Your task to perform on an android device: turn off javascript in the chrome app Image 0: 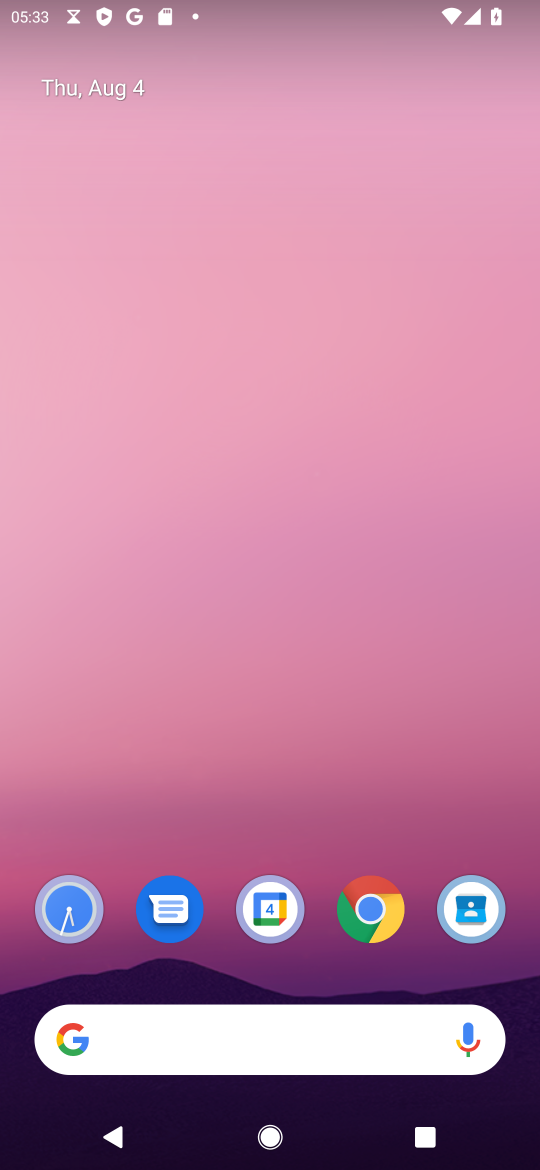
Step 0: press home button
Your task to perform on an android device: turn off javascript in the chrome app Image 1: 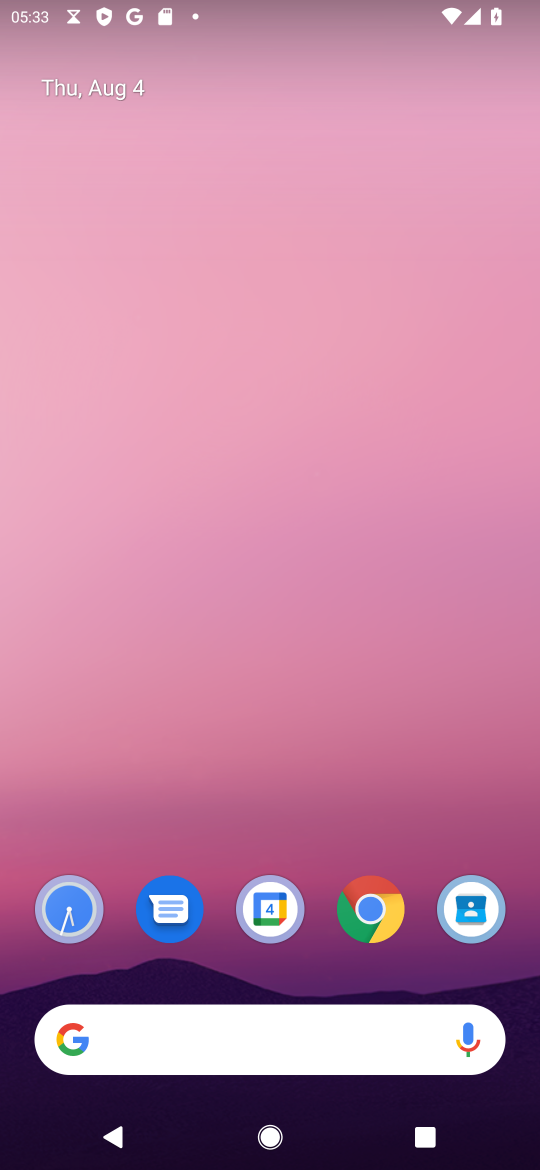
Step 1: click (369, 912)
Your task to perform on an android device: turn off javascript in the chrome app Image 2: 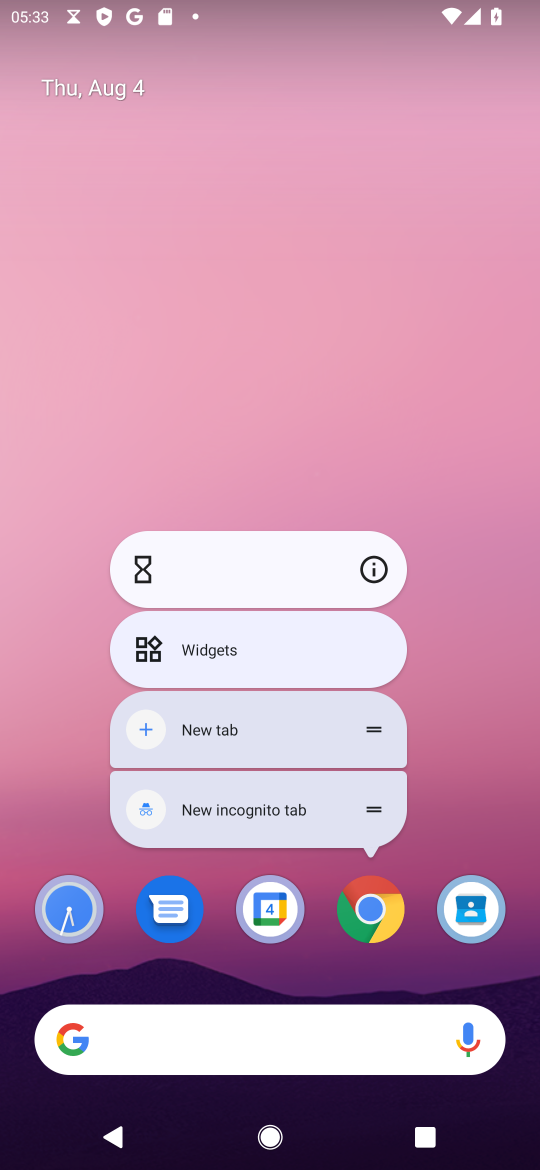
Step 2: click (374, 910)
Your task to perform on an android device: turn off javascript in the chrome app Image 3: 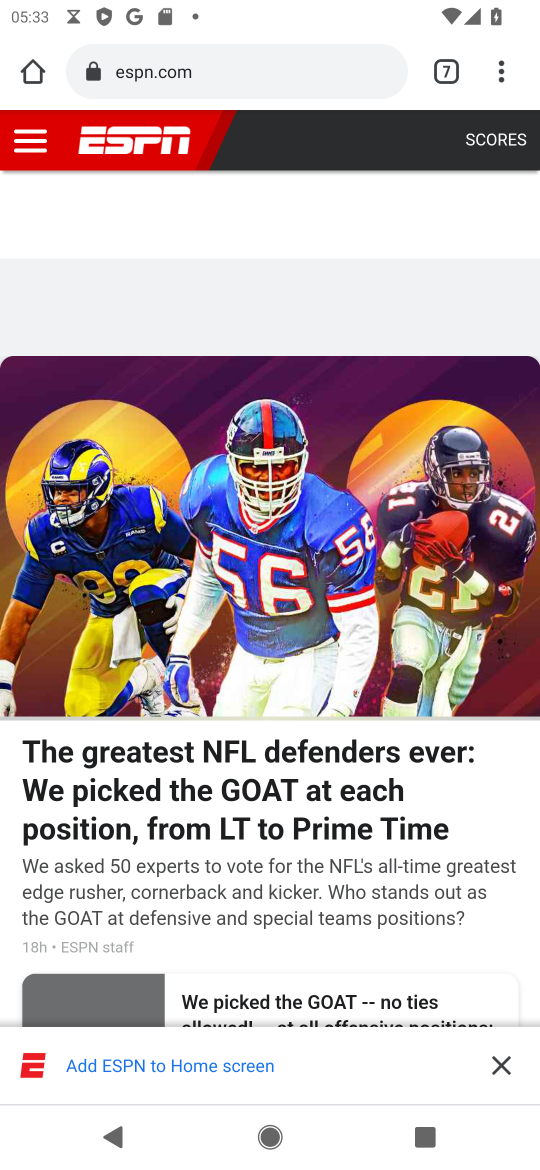
Step 3: drag from (500, 75) to (322, 984)
Your task to perform on an android device: turn off javascript in the chrome app Image 4: 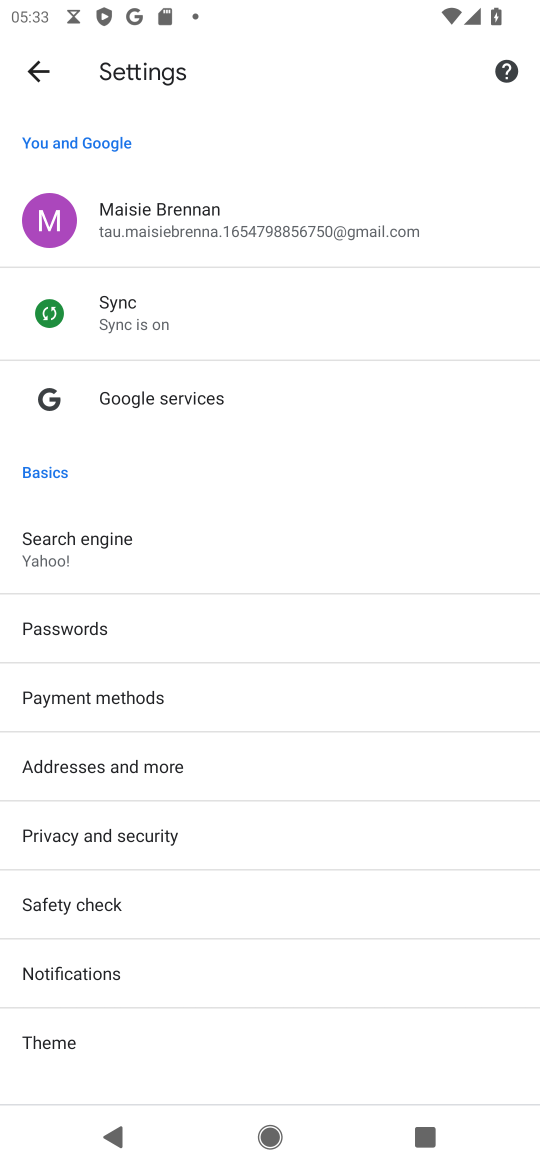
Step 4: drag from (189, 925) to (383, 346)
Your task to perform on an android device: turn off javascript in the chrome app Image 5: 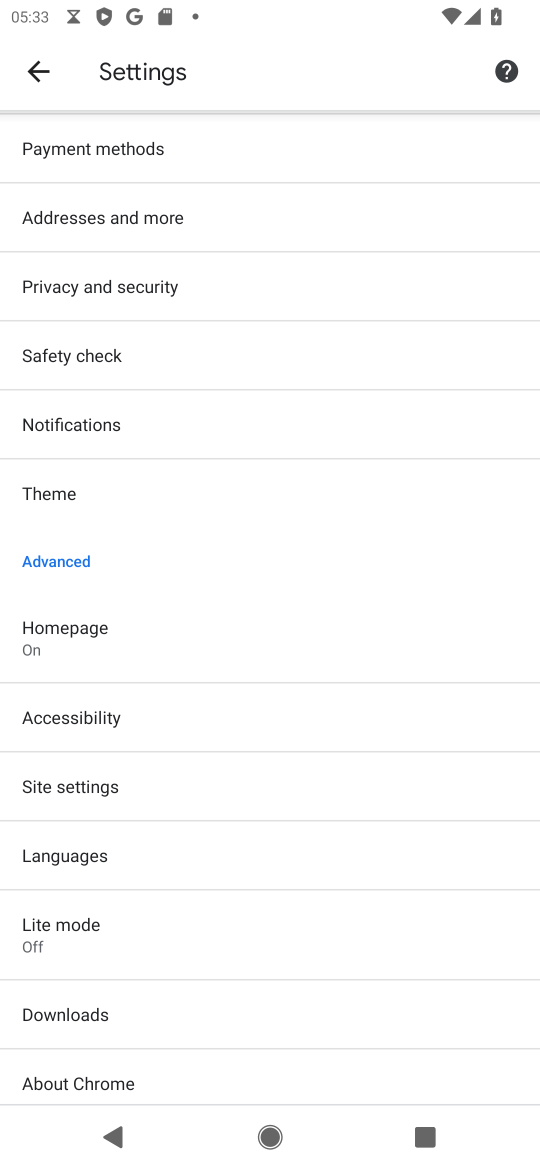
Step 5: click (161, 786)
Your task to perform on an android device: turn off javascript in the chrome app Image 6: 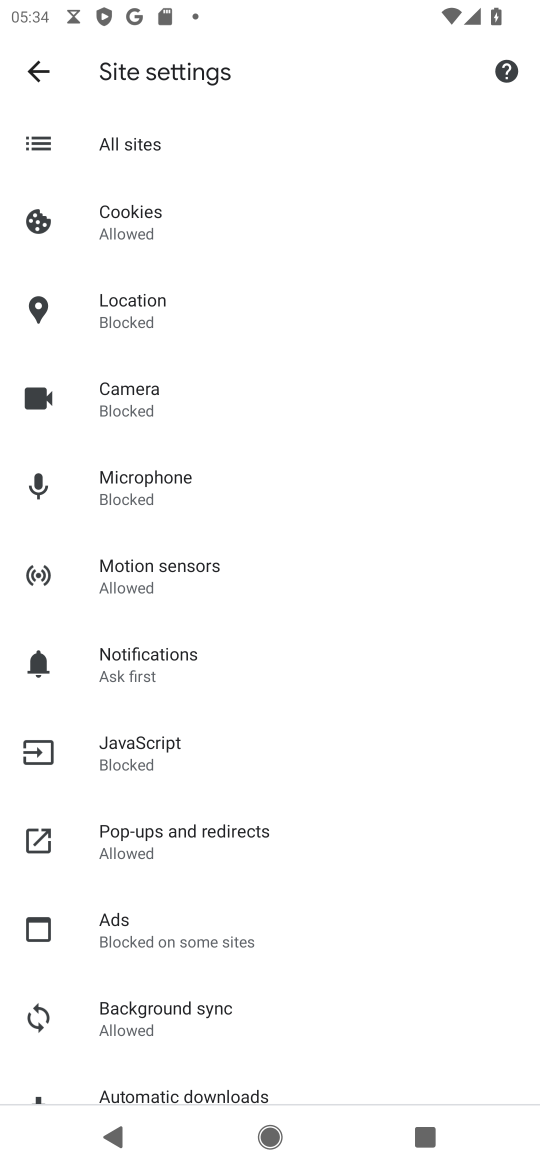
Step 6: click (194, 744)
Your task to perform on an android device: turn off javascript in the chrome app Image 7: 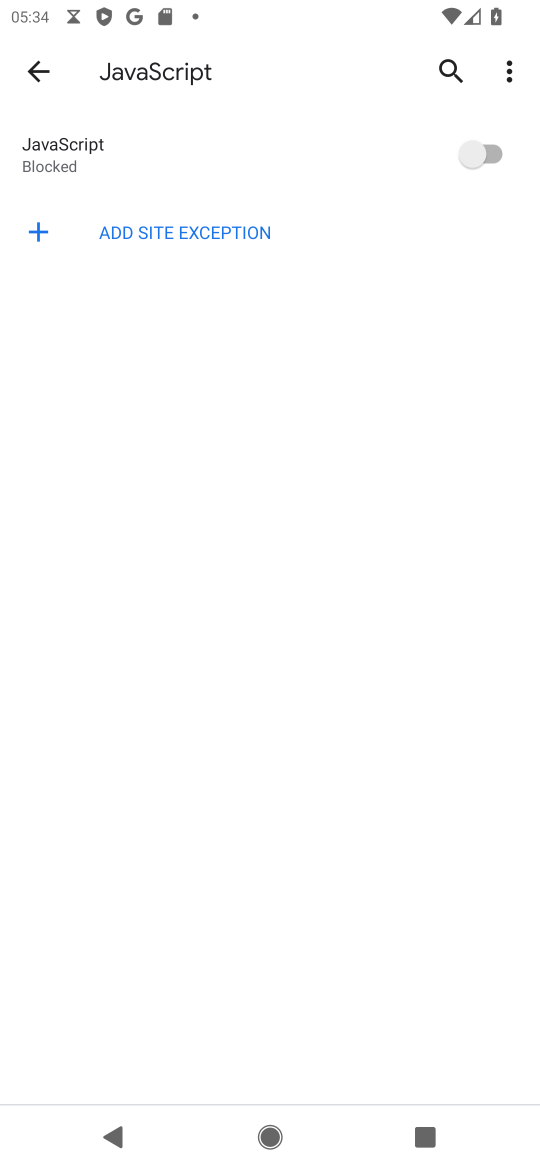
Step 7: task complete